Your task to perform on an android device: Open Google Chrome and click the shortcut for Amazon.com Image 0: 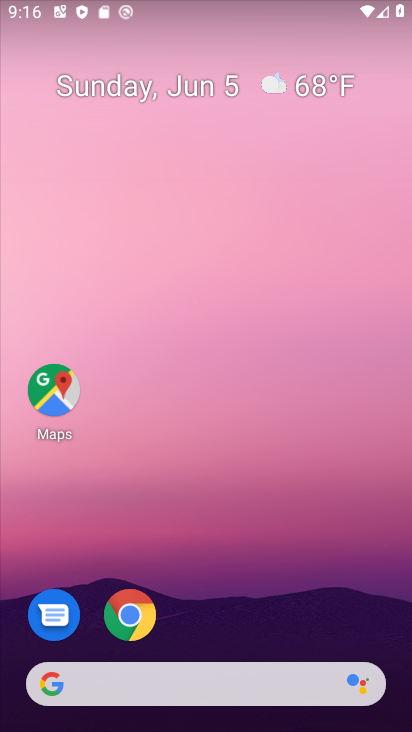
Step 0: click (142, 631)
Your task to perform on an android device: Open Google Chrome and click the shortcut for Amazon.com Image 1: 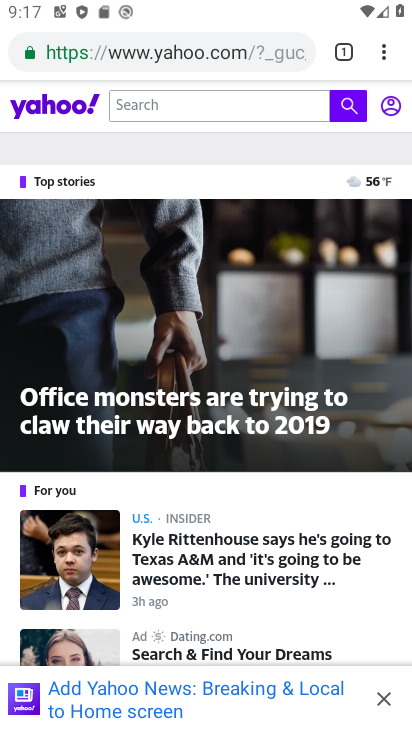
Step 1: click (177, 49)
Your task to perform on an android device: Open Google Chrome and click the shortcut for Amazon.com Image 2: 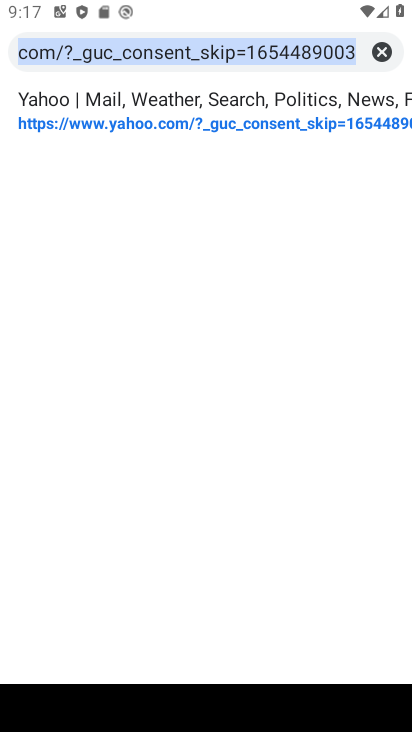
Step 2: type "amazon.com"
Your task to perform on an android device: Open Google Chrome and click the shortcut for Amazon.com Image 3: 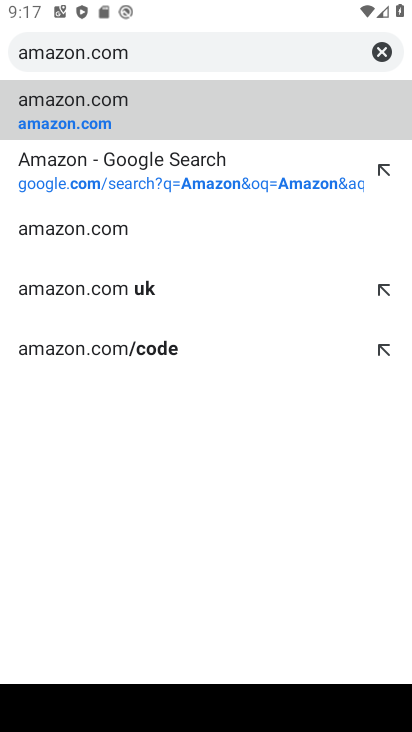
Step 3: click (95, 108)
Your task to perform on an android device: Open Google Chrome and click the shortcut for Amazon.com Image 4: 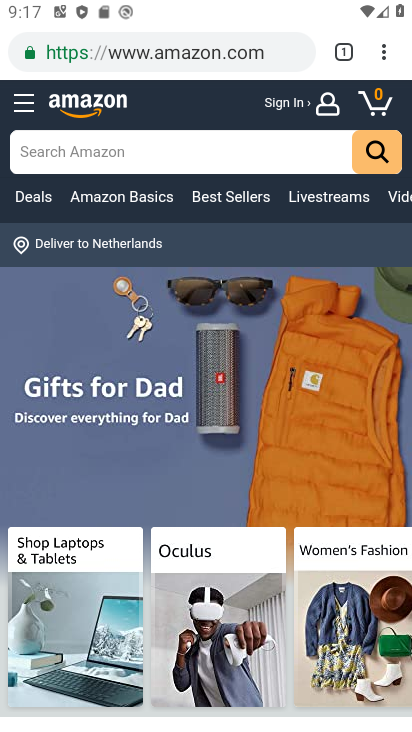
Step 4: task complete